Your task to perform on an android device: find snoozed emails in the gmail app Image 0: 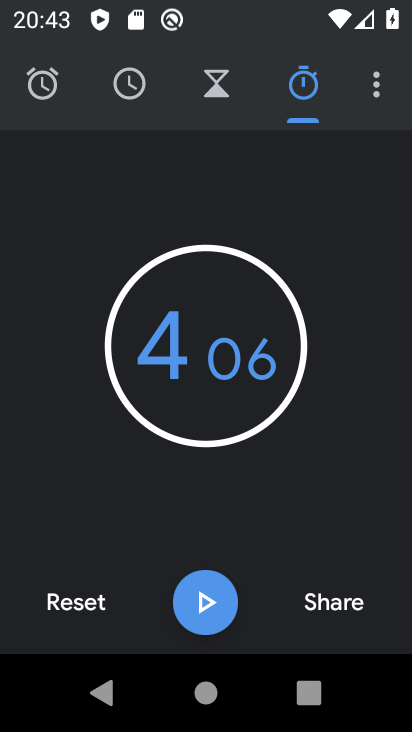
Step 0: press back button
Your task to perform on an android device: find snoozed emails in the gmail app Image 1: 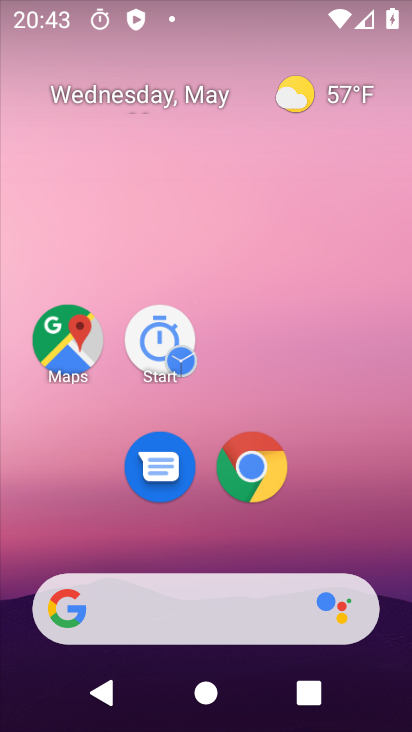
Step 1: drag from (367, 618) to (121, 71)
Your task to perform on an android device: find snoozed emails in the gmail app Image 2: 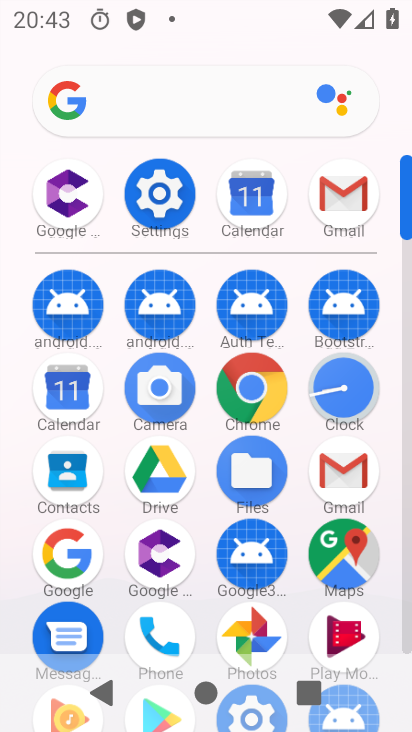
Step 2: click (335, 463)
Your task to perform on an android device: find snoozed emails in the gmail app Image 3: 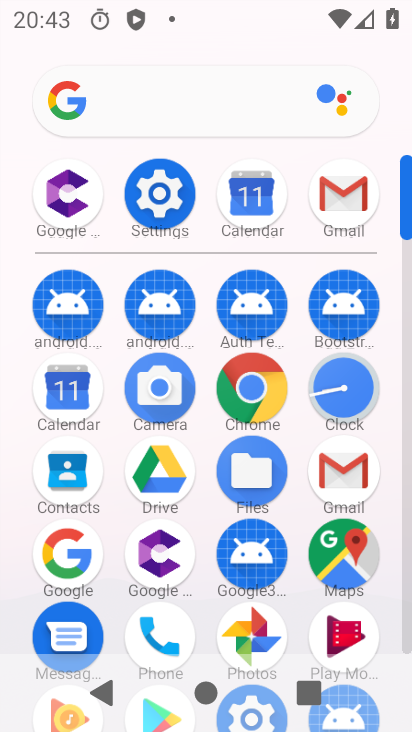
Step 3: click (335, 463)
Your task to perform on an android device: find snoozed emails in the gmail app Image 4: 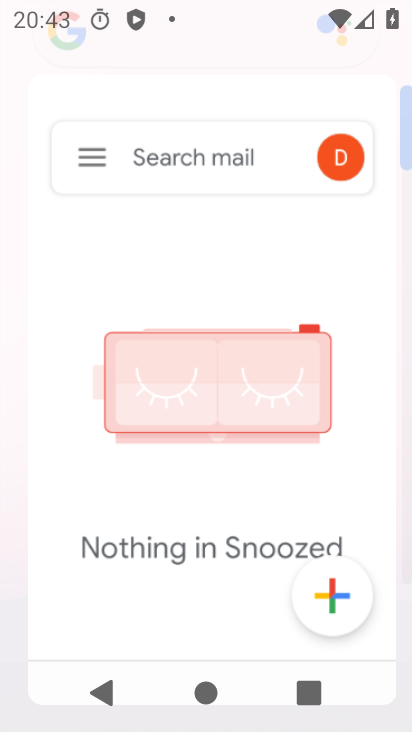
Step 4: click (335, 463)
Your task to perform on an android device: find snoozed emails in the gmail app Image 5: 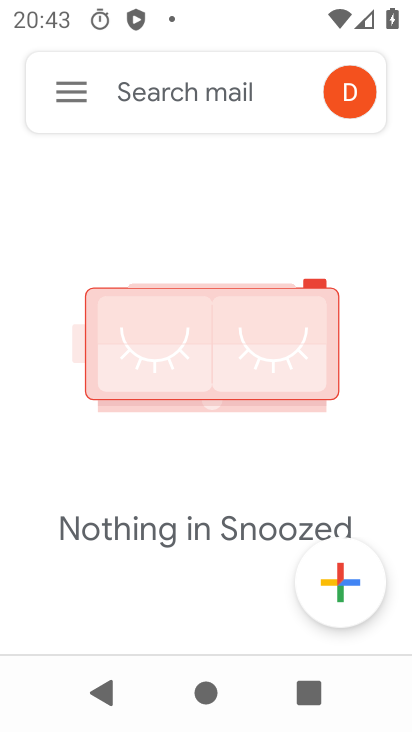
Step 5: click (335, 463)
Your task to perform on an android device: find snoozed emails in the gmail app Image 6: 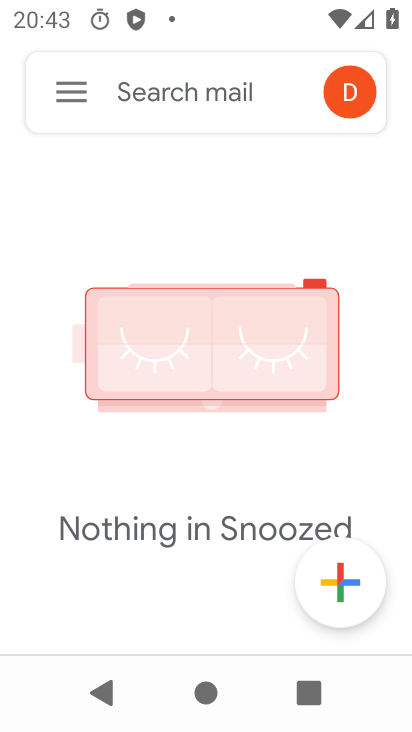
Step 6: click (335, 463)
Your task to perform on an android device: find snoozed emails in the gmail app Image 7: 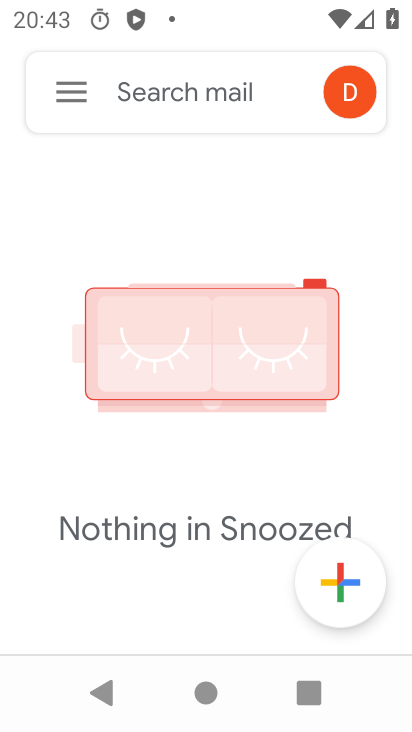
Step 7: task complete